Your task to perform on an android device: turn smart compose on in the gmail app Image 0: 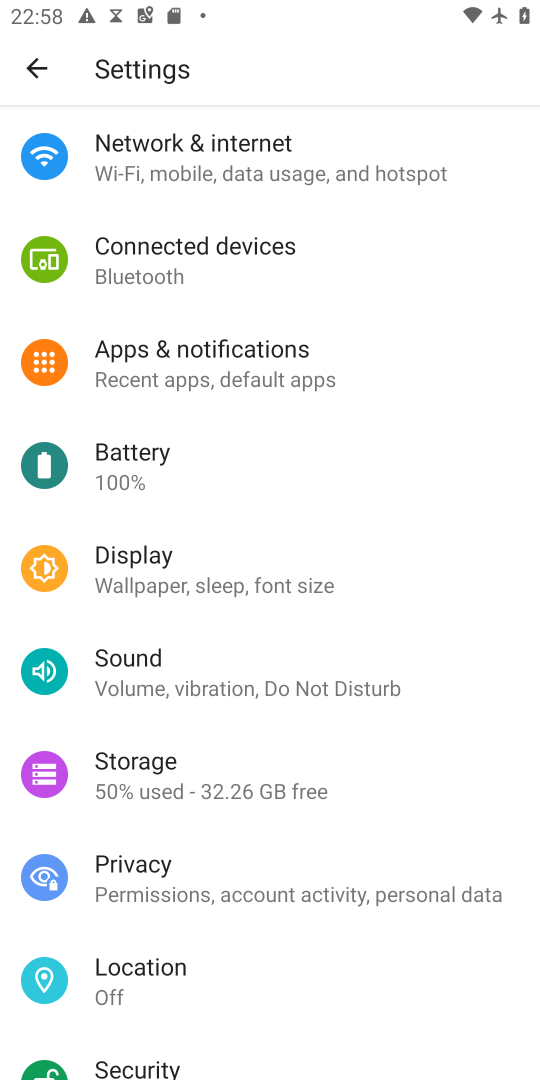
Step 0: press home button
Your task to perform on an android device: turn smart compose on in the gmail app Image 1: 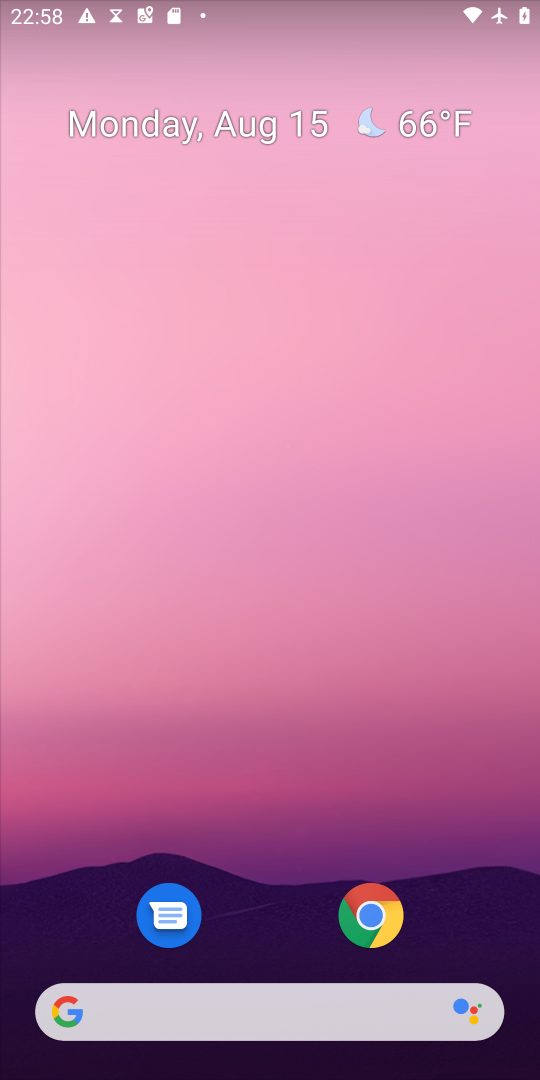
Step 1: drag from (330, 936) to (347, 334)
Your task to perform on an android device: turn smart compose on in the gmail app Image 2: 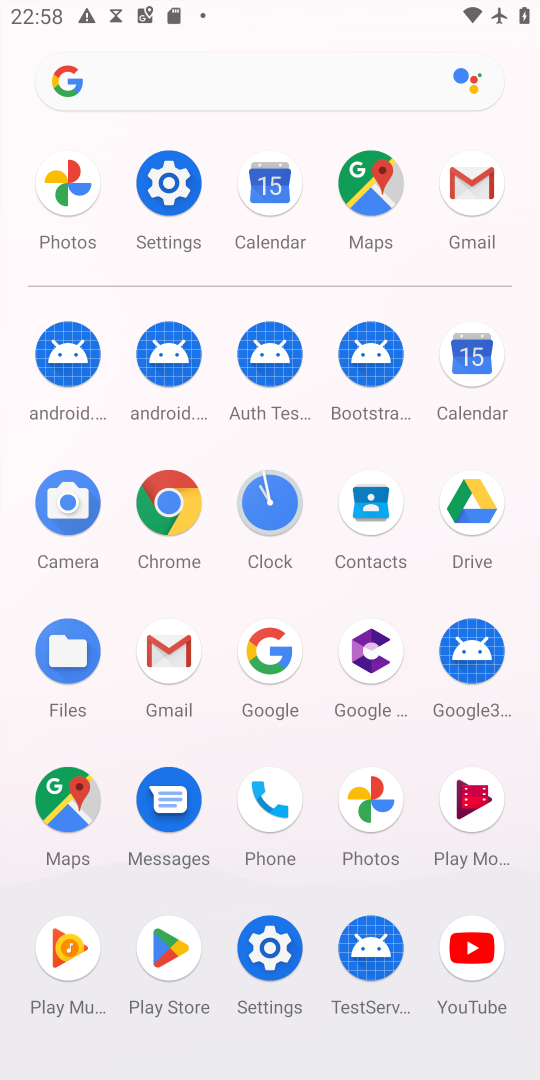
Step 2: click (487, 172)
Your task to perform on an android device: turn smart compose on in the gmail app Image 3: 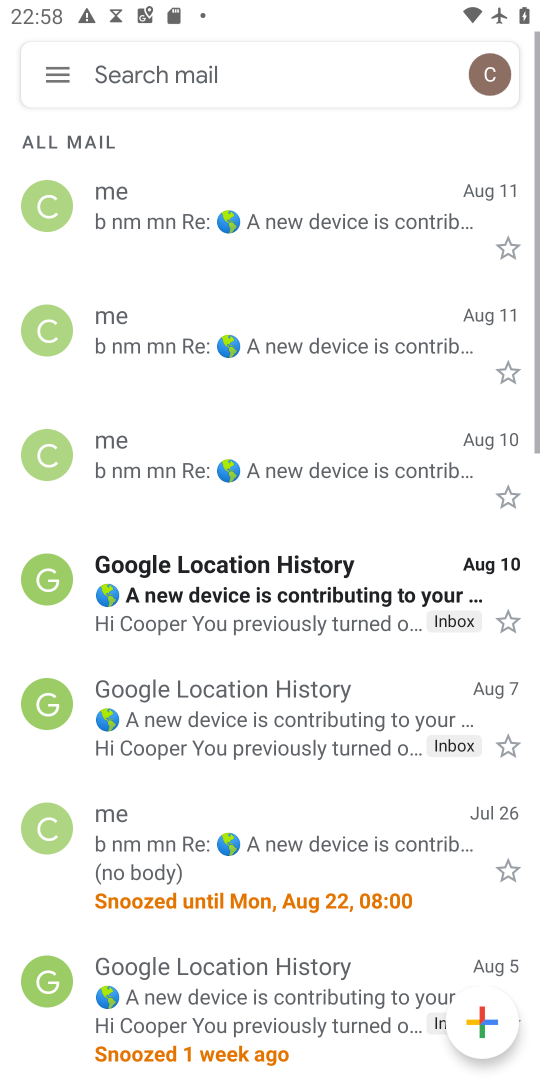
Step 3: click (58, 71)
Your task to perform on an android device: turn smart compose on in the gmail app Image 4: 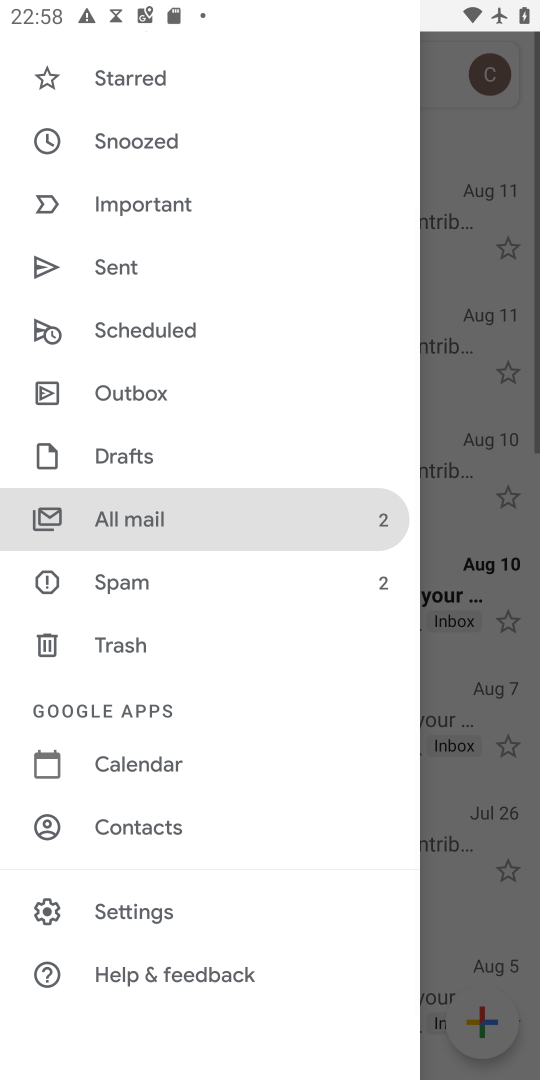
Step 4: click (124, 907)
Your task to perform on an android device: turn smart compose on in the gmail app Image 5: 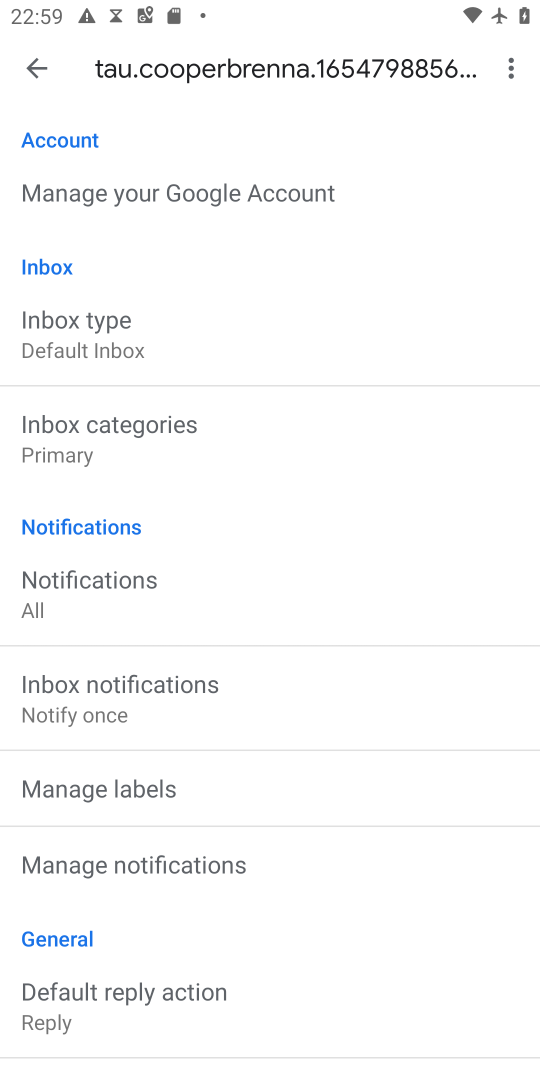
Step 5: task complete